Your task to perform on an android device: toggle airplane mode Image 0: 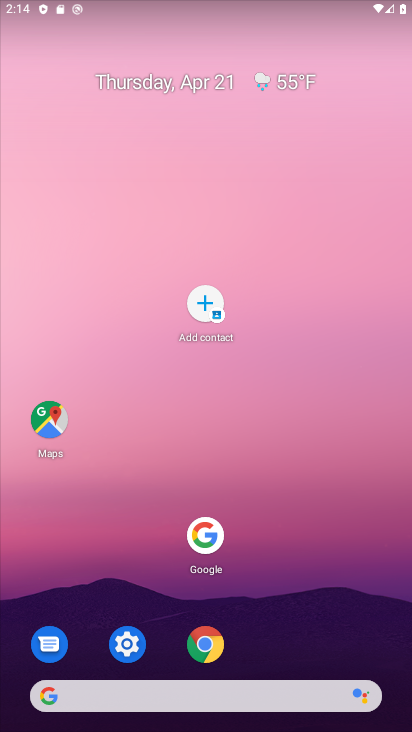
Step 0: click (208, 639)
Your task to perform on an android device: toggle airplane mode Image 1: 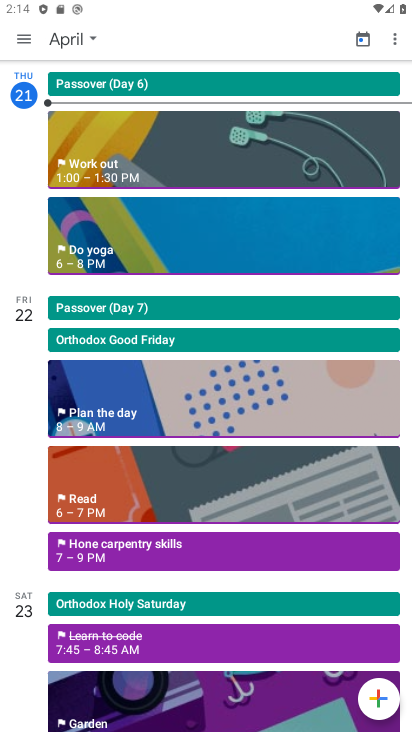
Step 1: press home button
Your task to perform on an android device: toggle airplane mode Image 2: 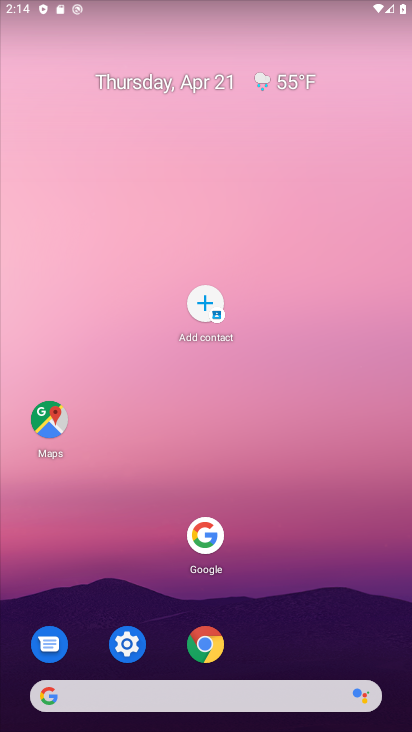
Step 2: drag from (204, 638) to (288, 521)
Your task to perform on an android device: toggle airplane mode Image 3: 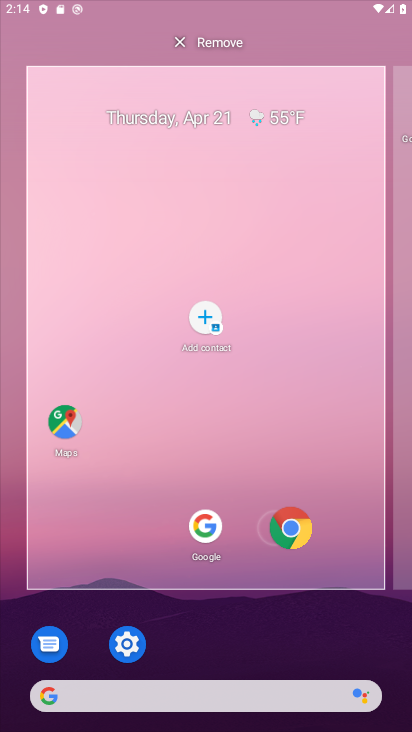
Step 3: click (289, 517)
Your task to perform on an android device: toggle airplane mode Image 4: 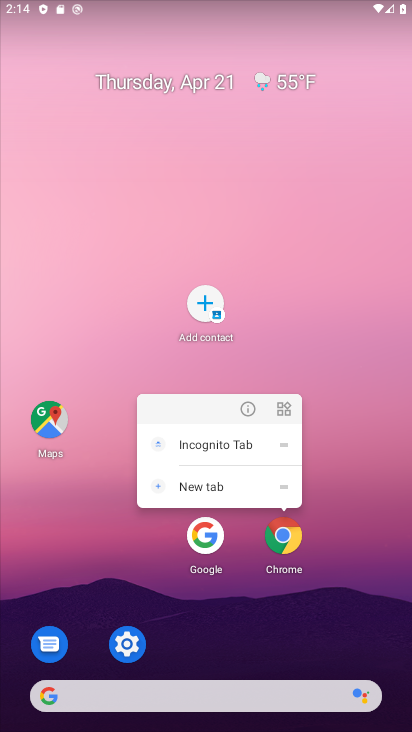
Step 4: click (240, 406)
Your task to perform on an android device: toggle airplane mode Image 5: 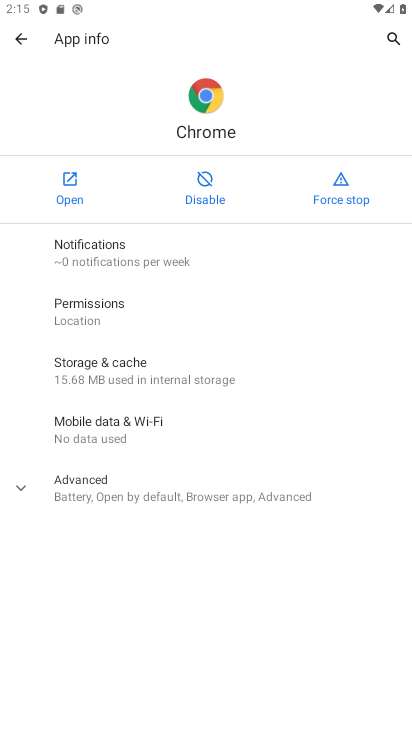
Step 5: click (15, 43)
Your task to perform on an android device: toggle airplane mode Image 6: 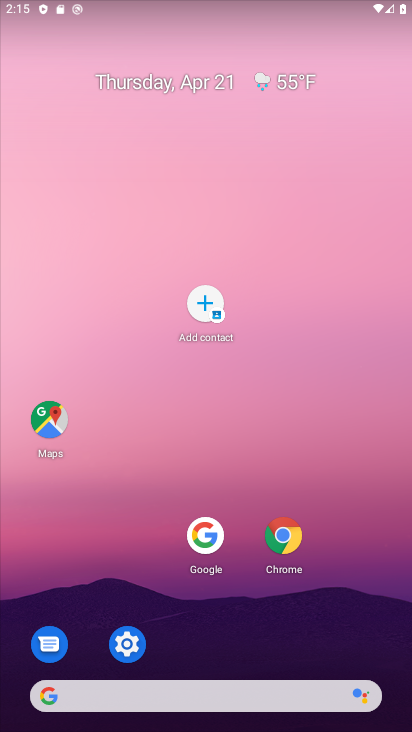
Step 6: click (286, 534)
Your task to perform on an android device: toggle airplane mode Image 7: 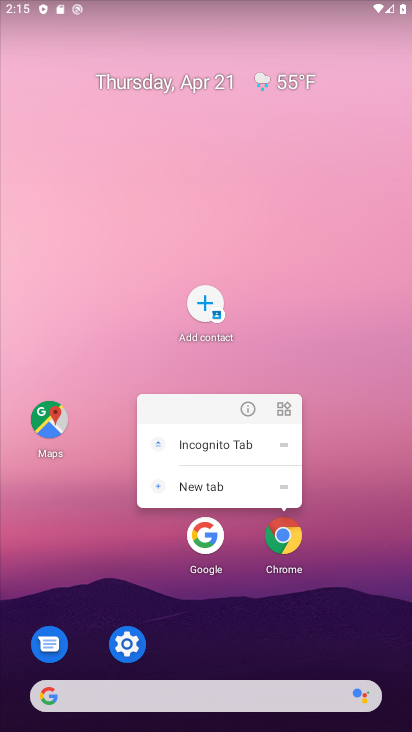
Step 7: click (253, 410)
Your task to perform on an android device: toggle airplane mode Image 8: 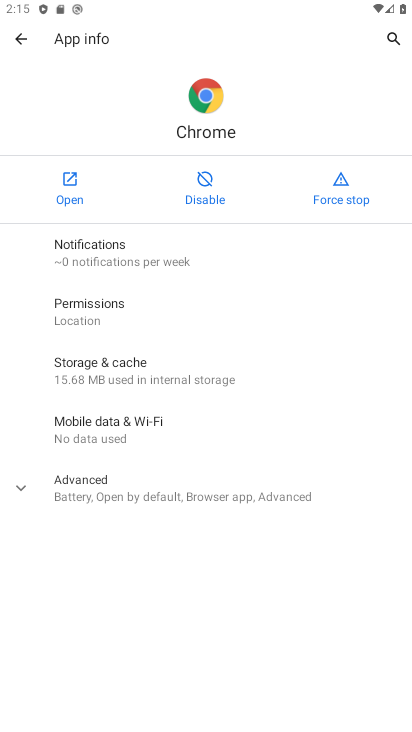
Step 8: click (19, 34)
Your task to perform on an android device: toggle airplane mode Image 9: 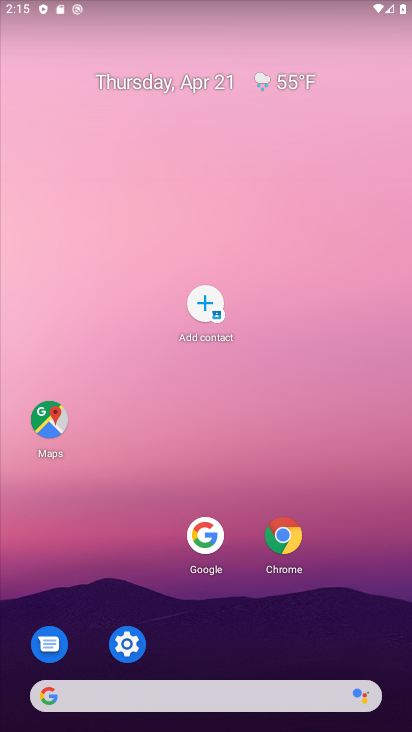
Step 9: click (284, 535)
Your task to perform on an android device: toggle airplane mode Image 10: 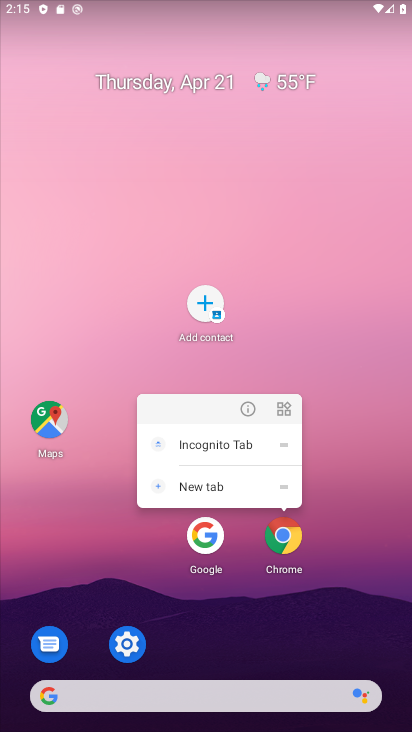
Step 10: click (243, 408)
Your task to perform on an android device: toggle airplane mode Image 11: 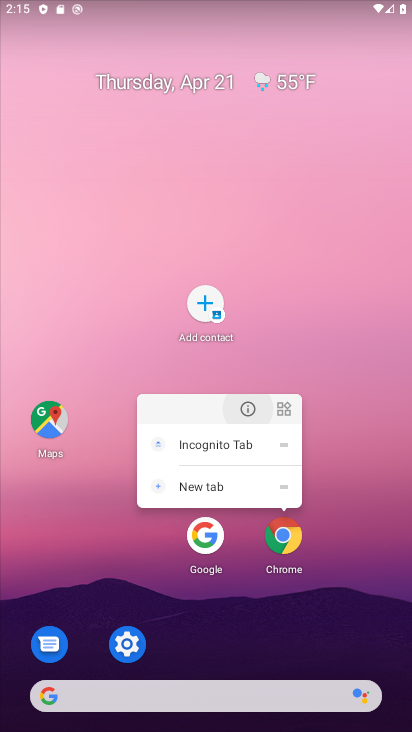
Step 11: click (244, 407)
Your task to perform on an android device: toggle airplane mode Image 12: 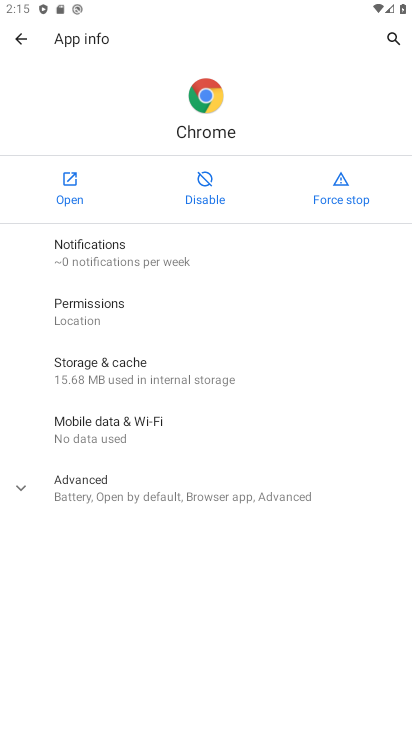
Step 12: click (23, 33)
Your task to perform on an android device: toggle airplane mode Image 13: 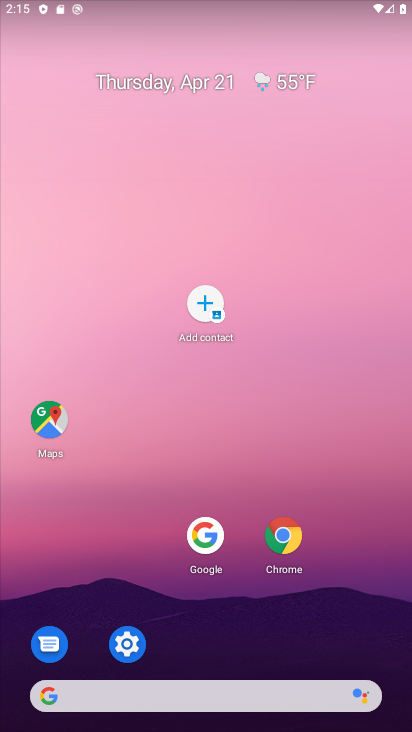
Step 13: drag from (251, 648) to (116, 136)
Your task to perform on an android device: toggle airplane mode Image 14: 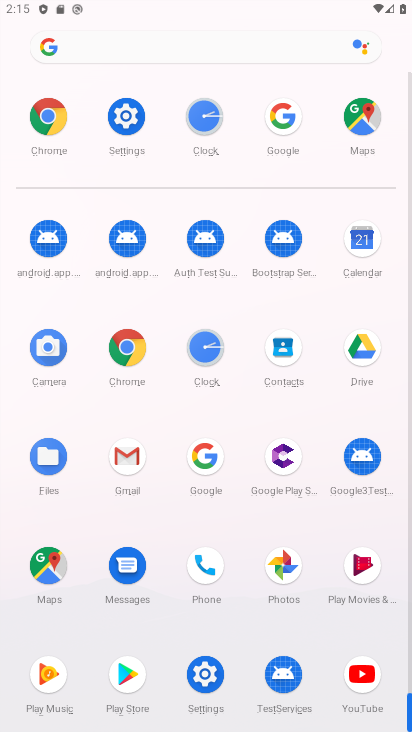
Step 14: click (130, 121)
Your task to perform on an android device: toggle airplane mode Image 15: 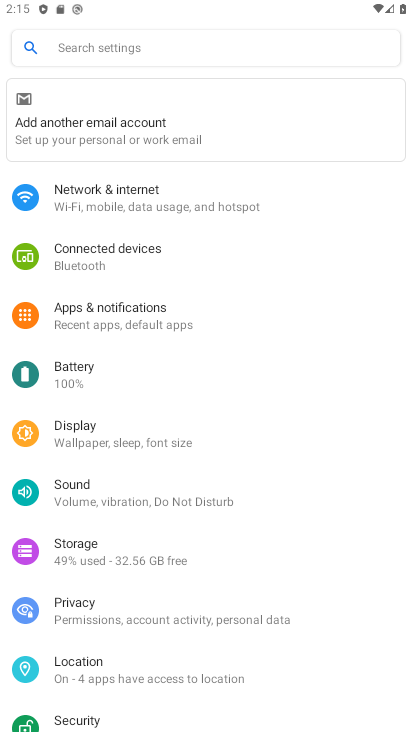
Step 15: click (104, 314)
Your task to perform on an android device: toggle airplane mode Image 16: 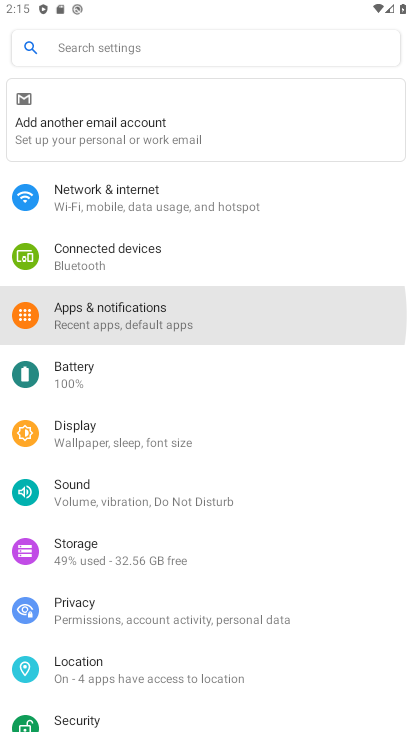
Step 16: click (104, 314)
Your task to perform on an android device: toggle airplane mode Image 17: 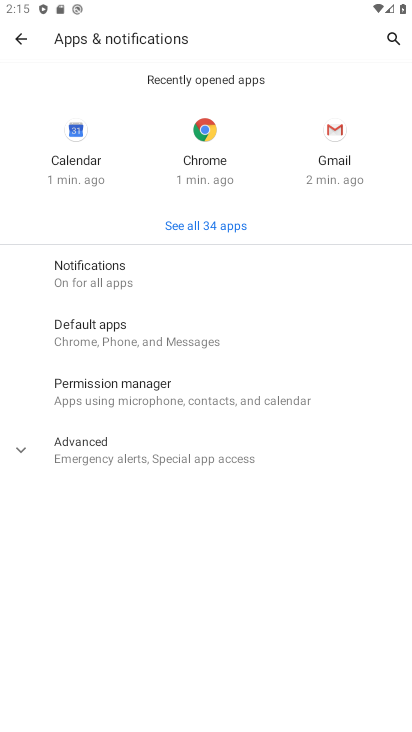
Step 17: click (20, 32)
Your task to perform on an android device: toggle airplane mode Image 18: 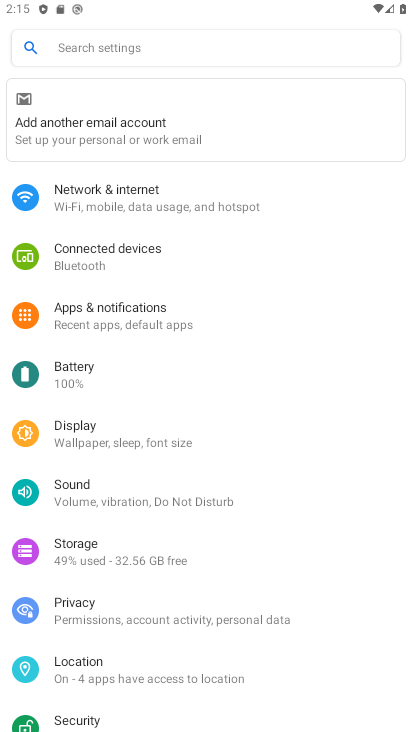
Step 18: click (134, 204)
Your task to perform on an android device: toggle airplane mode Image 19: 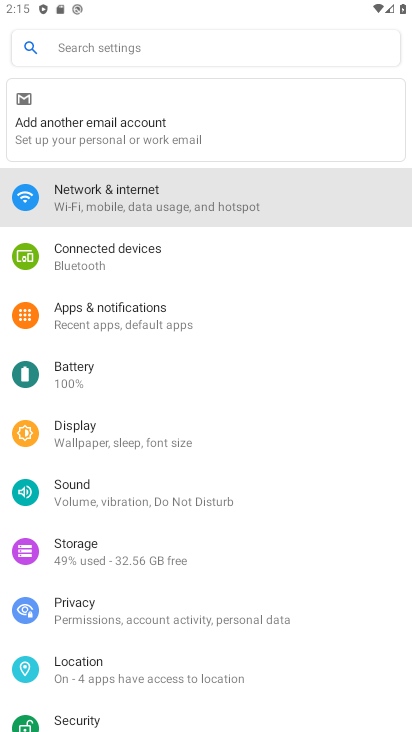
Step 19: click (134, 204)
Your task to perform on an android device: toggle airplane mode Image 20: 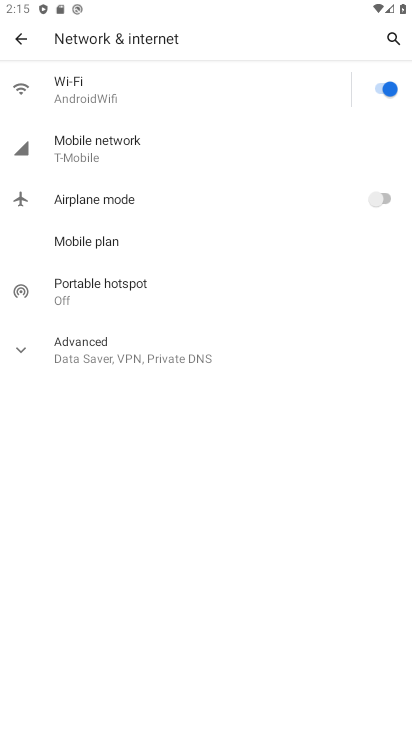
Step 20: click (377, 203)
Your task to perform on an android device: toggle airplane mode Image 21: 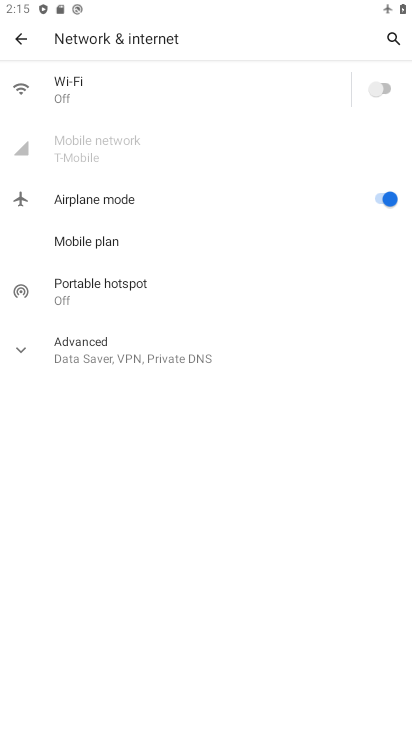
Step 21: task complete